Your task to perform on an android device: Open Maps and search for coffee Image 0: 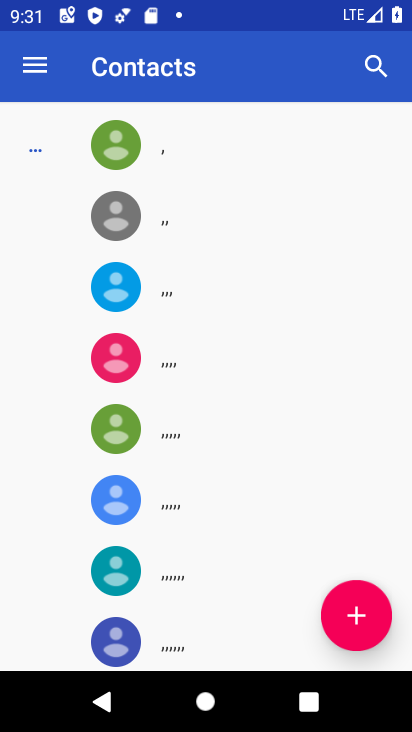
Step 0: press home button
Your task to perform on an android device: Open Maps and search for coffee Image 1: 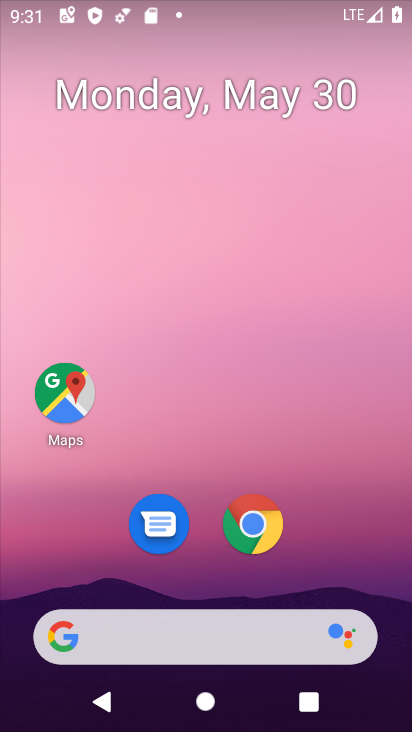
Step 1: click (62, 394)
Your task to perform on an android device: Open Maps and search for coffee Image 2: 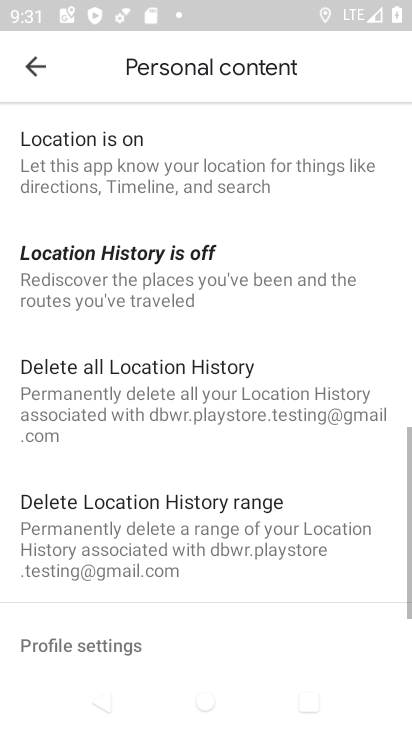
Step 2: click (25, 53)
Your task to perform on an android device: Open Maps and search for coffee Image 3: 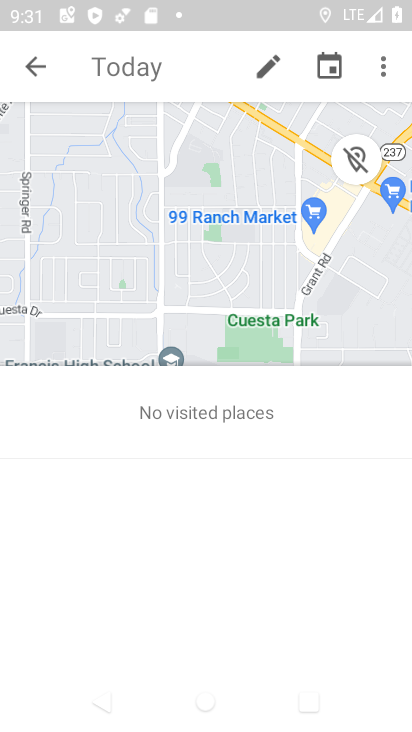
Step 3: click (31, 58)
Your task to perform on an android device: Open Maps and search for coffee Image 4: 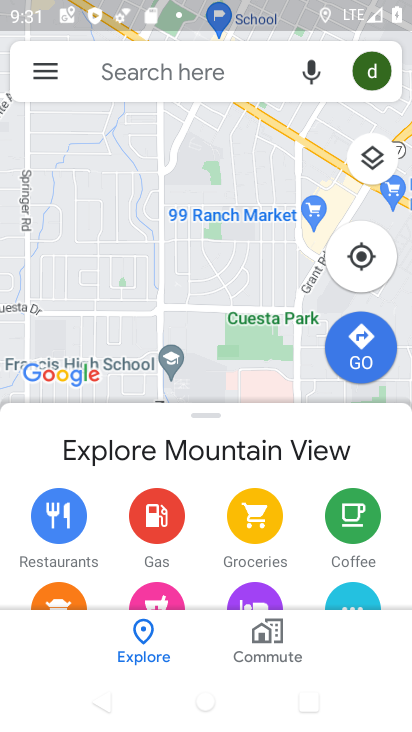
Step 4: click (205, 61)
Your task to perform on an android device: Open Maps and search for coffee Image 5: 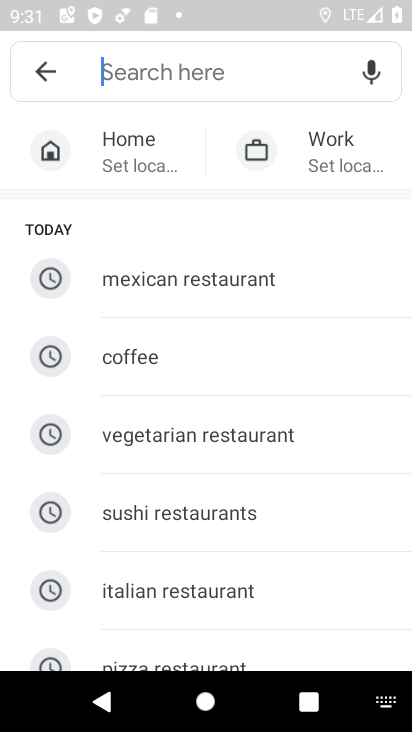
Step 5: click (144, 340)
Your task to perform on an android device: Open Maps and search for coffee Image 6: 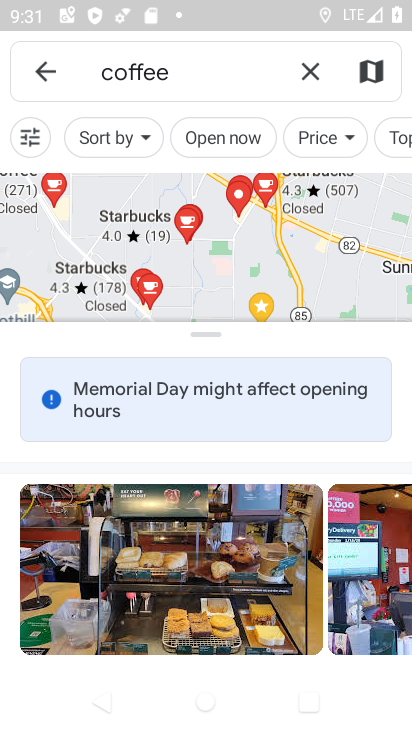
Step 6: task complete